Your task to perform on an android device: Go to Reddit.com Image 0: 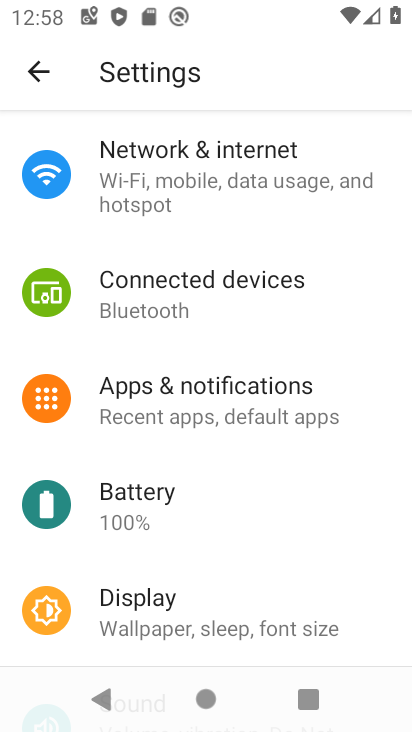
Step 0: press home button
Your task to perform on an android device: Go to Reddit.com Image 1: 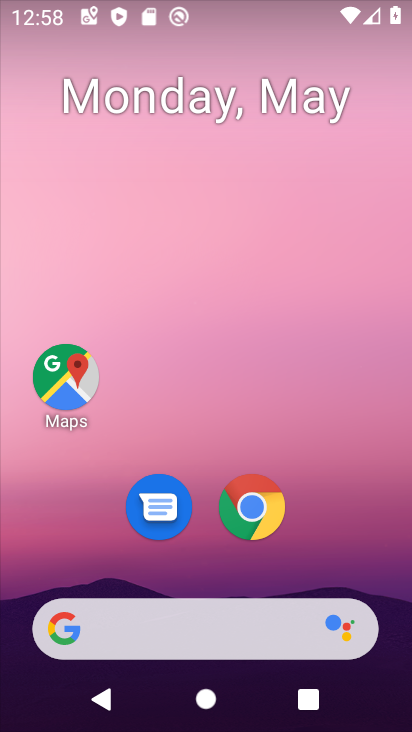
Step 1: drag from (243, 725) to (243, 96)
Your task to perform on an android device: Go to Reddit.com Image 2: 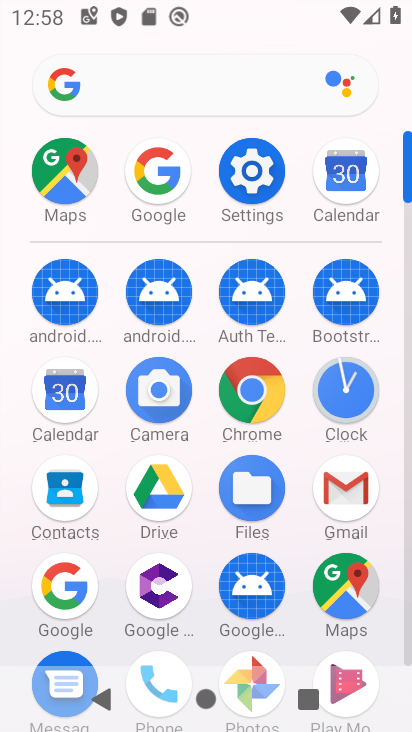
Step 2: click (253, 399)
Your task to perform on an android device: Go to Reddit.com Image 3: 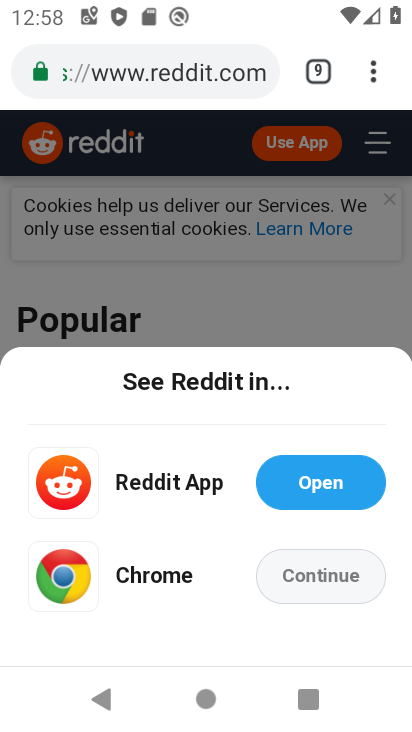
Step 3: task complete